Your task to perform on an android device: open chrome and create a bookmark for the current page Image 0: 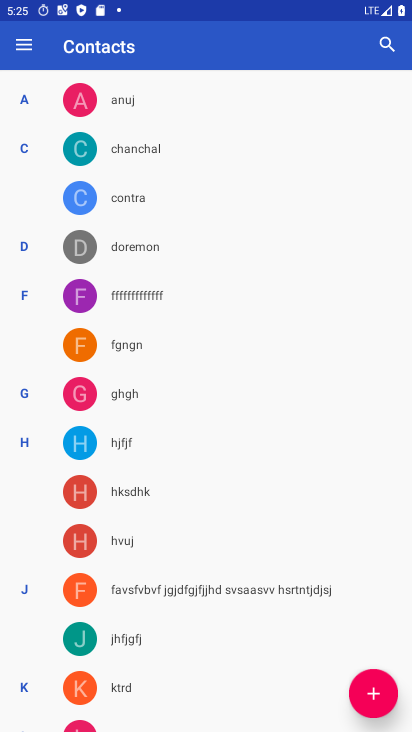
Step 0: press home button
Your task to perform on an android device: open chrome and create a bookmark for the current page Image 1: 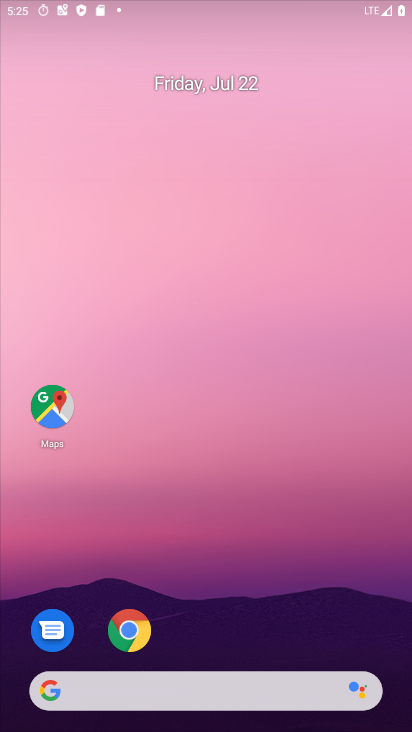
Step 1: drag from (240, 624) to (149, 43)
Your task to perform on an android device: open chrome and create a bookmark for the current page Image 2: 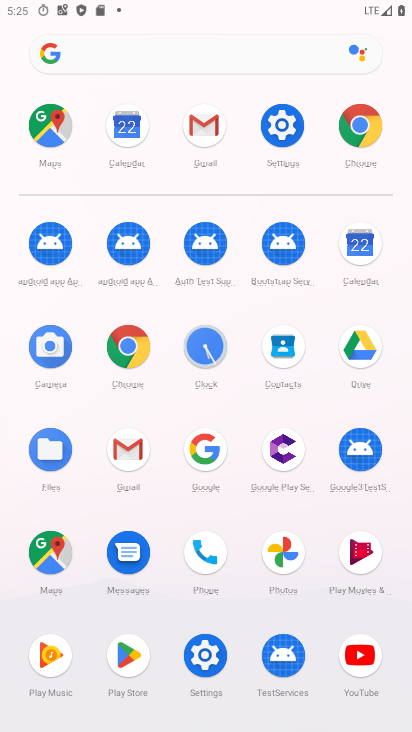
Step 2: click (125, 356)
Your task to perform on an android device: open chrome and create a bookmark for the current page Image 3: 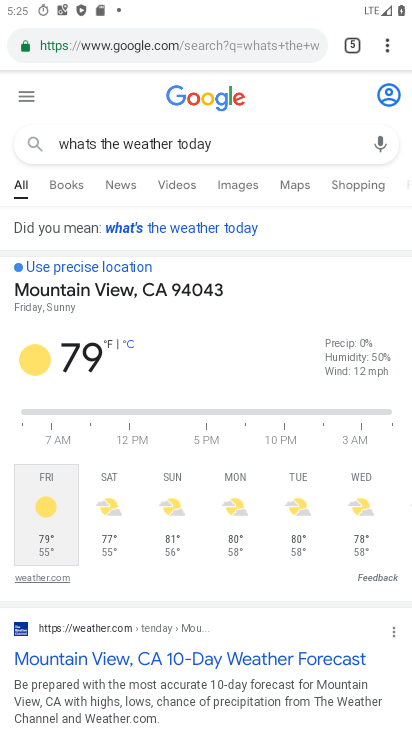
Step 3: task complete